Your task to perform on an android device: Go to accessibility settings Image 0: 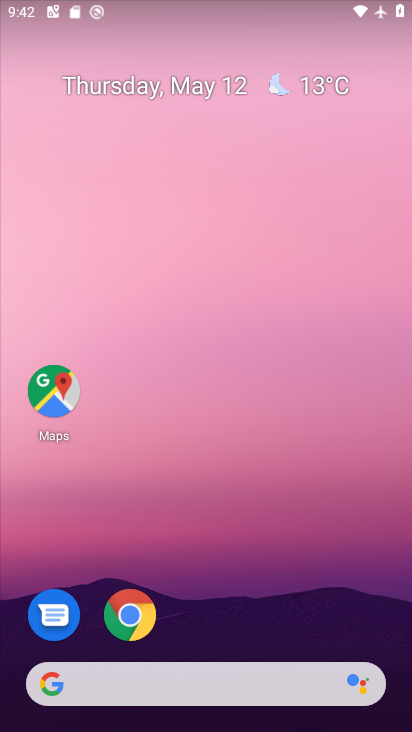
Step 0: drag from (260, 551) to (142, 0)
Your task to perform on an android device: Go to accessibility settings Image 1: 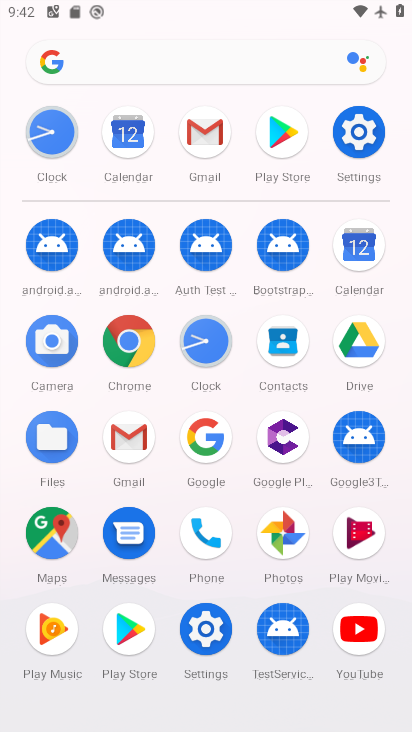
Step 1: click (356, 135)
Your task to perform on an android device: Go to accessibility settings Image 2: 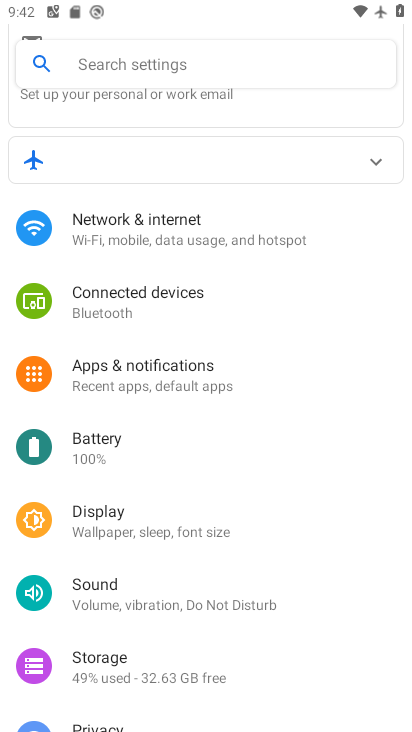
Step 2: drag from (178, 483) to (112, 212)
Your task to perform on an android device: Go to accessibility settings Image 3: 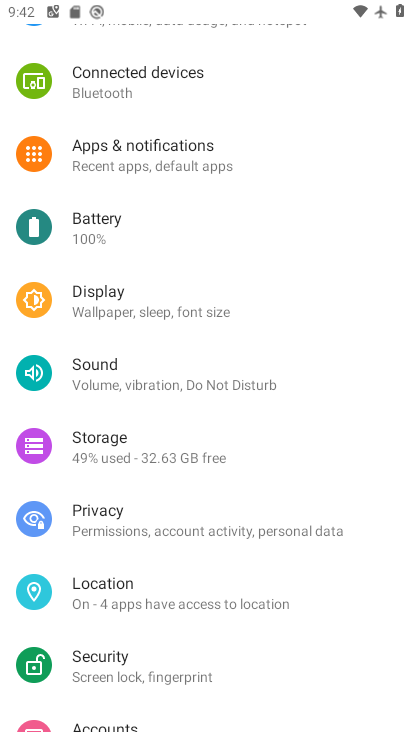
Step 3: drag from (175, 550) to (123, 153)
Your task to perform on an android device: Go to accessibility settings Image 4: 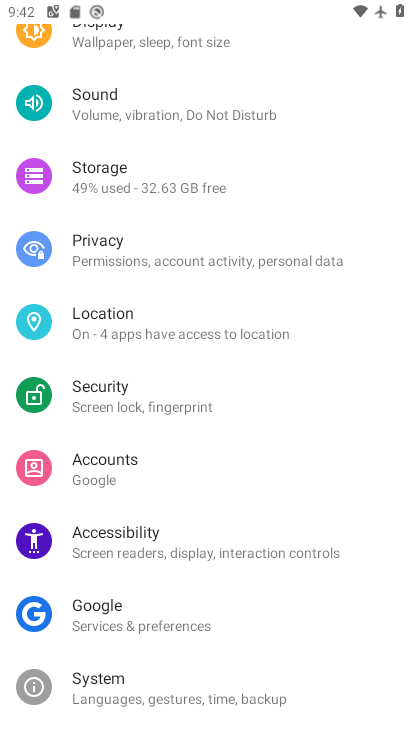
Step 4: click (135, 525)
Your task to perform on an android device: Go to accessibility settings Image 5: 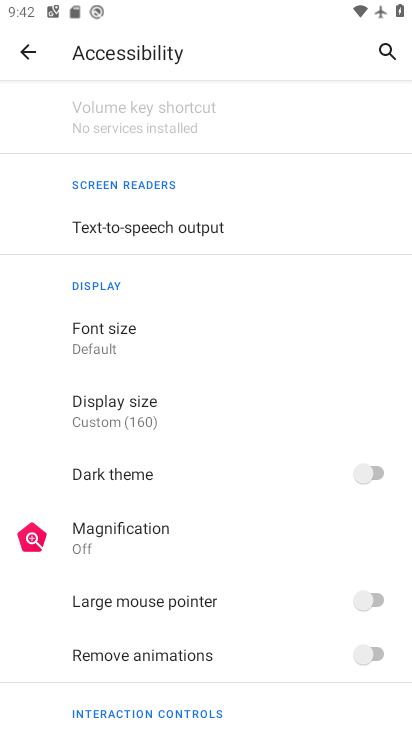
Step 5: task complete